Your task to perform on an android device: Open Yahoo.com Image 0: 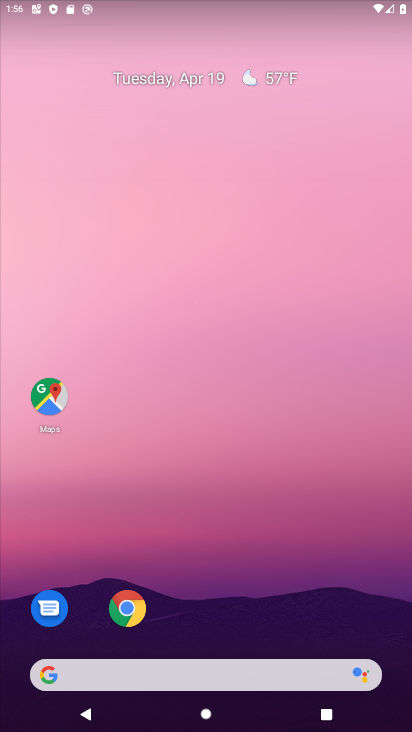
Step 0: click (135, 600)
Your task to perform on an android device: Open Yahoo.com Image 1: 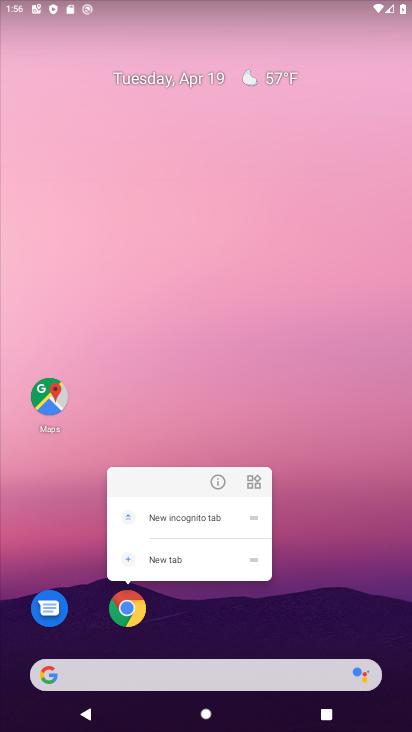
Step 1: click (126, 620)
Your task to perform on an android device: Open Yahoo.com Image 2: 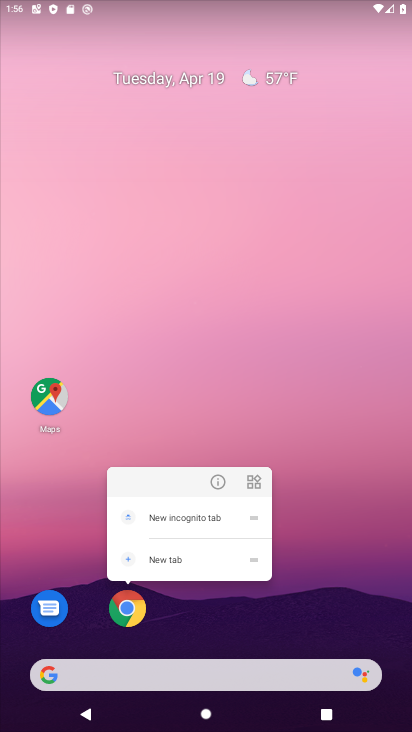
Step 2: click (126, 620)
Your task to perform on an android device: Open Yahoo.com Image 3: 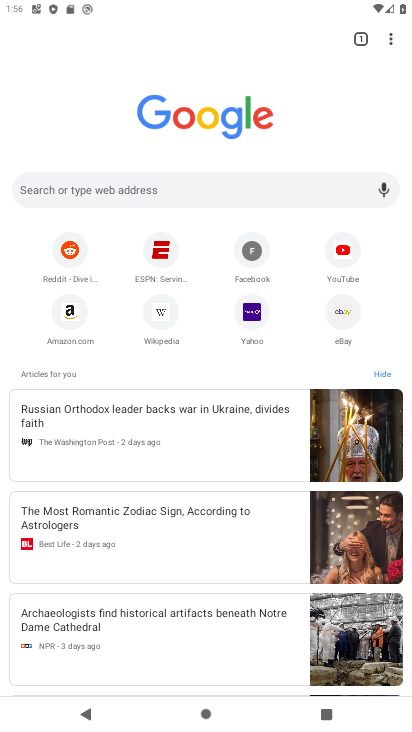
Step 3: click (245, 311)
Your task to perform on an android device: Open Yahoo.com Image 4: 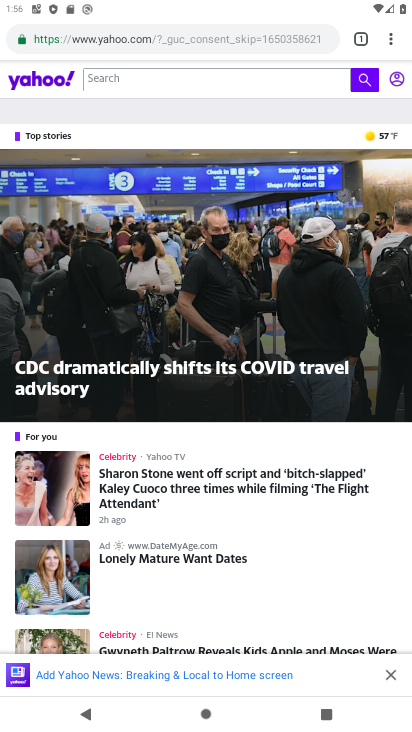
Step 4: click (385, 674)
Your task to perform on an android device: Open Yahoo.com Image 5: 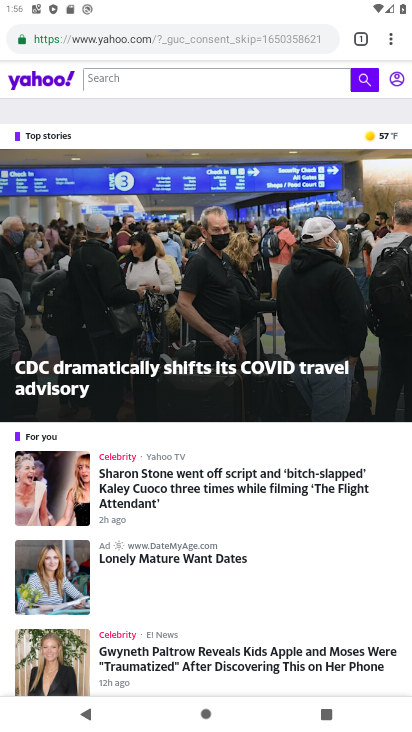
Step 5: task complete